Your task to perform on an android device: set the stopwatch Image 0: 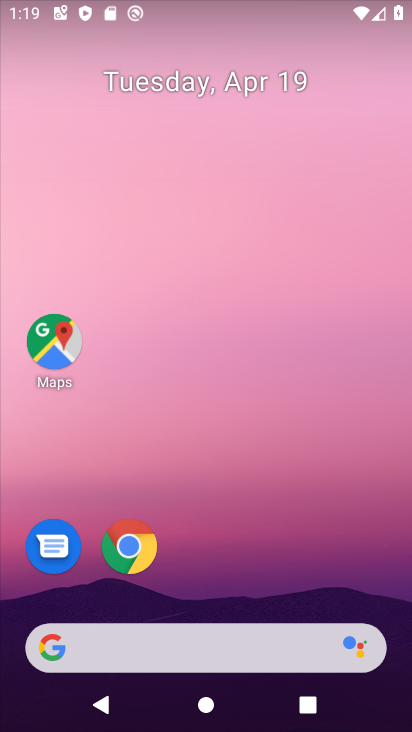
Step 0: drag from (194, 585) to (304, 27)
Your task to perform on an android device: set the stopwatch Image 1: 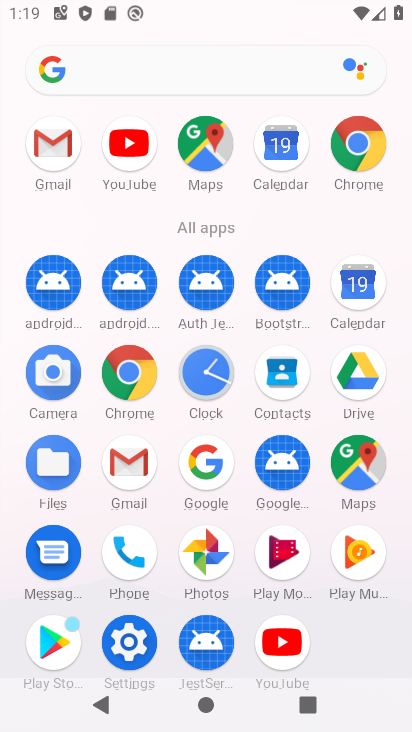
Step 1: click (209, 387)
Your task to perform on an android device: set the stopwatch Image 2: 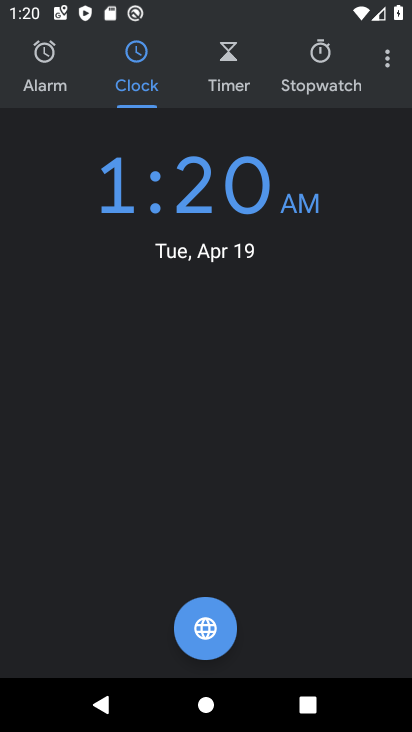
Step 2: click (300, 71)
Your task to perform on an android device: set the stopwatch Image 3: 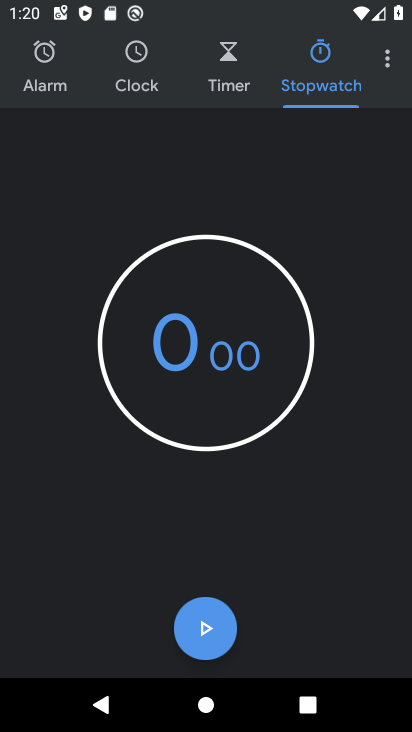
Step 3: click (195, 349)
Your task to perform on an android device: set the stopwatch Image 4: 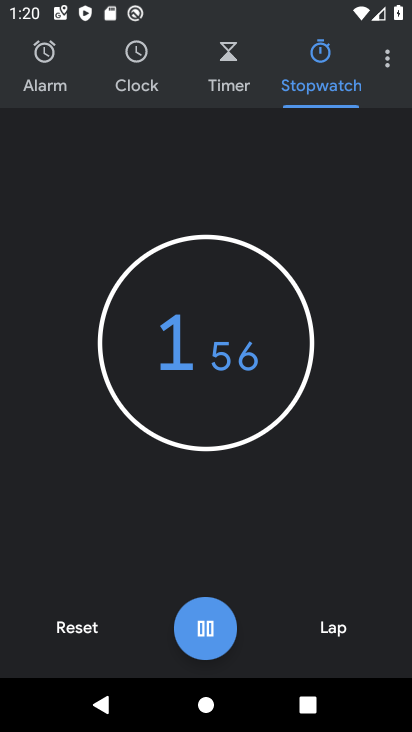
Step 4: click (195, 350)
Your task to perform on an android device: set the stopwatch Image 5: 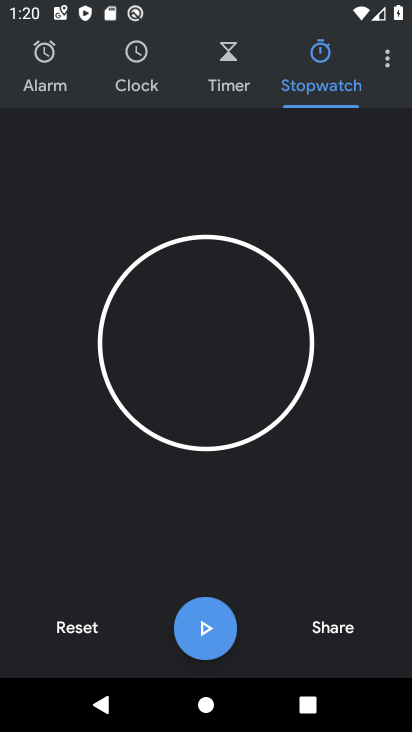
Step 5: task complete